Your task to perform on an android device: turn on javascript in the chrome app Image 0: 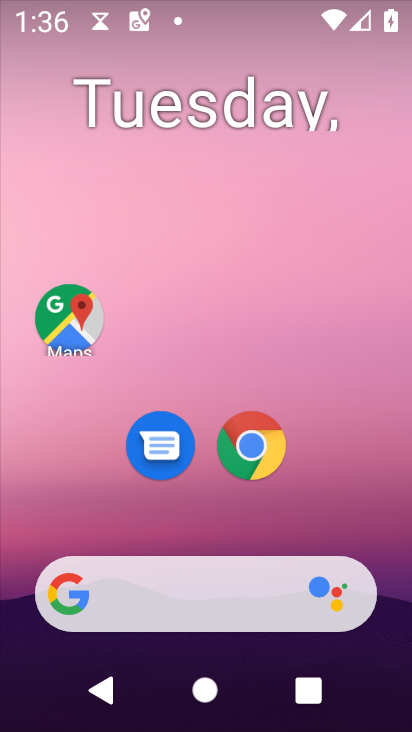
Step 0: drag from (315, 615) to (324, 113)
Your task to perform on an android device: turn on javascript in the chrome app Image 1: 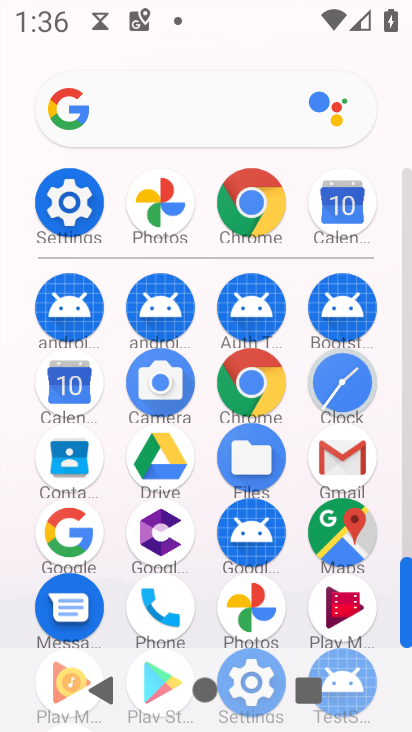
Step 1: click (262, 387)
Your task to perform on an android device: turn on javascript in the chrome app Image 2: 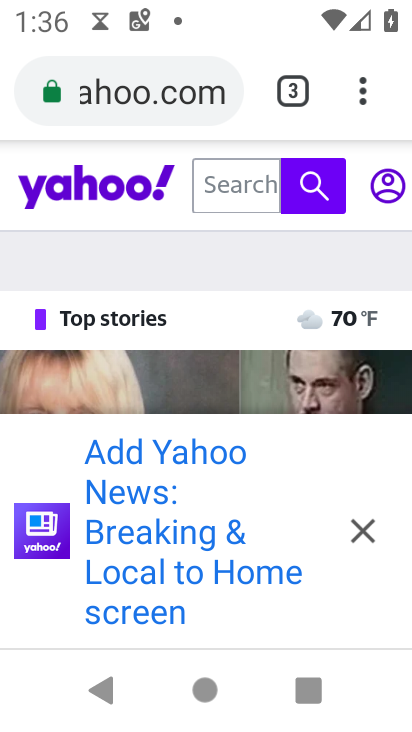
Step 2: drag from (359, 77) to (280, 516)
Your task to perform on an android device: turn on javascript in the chrome app Image 3: 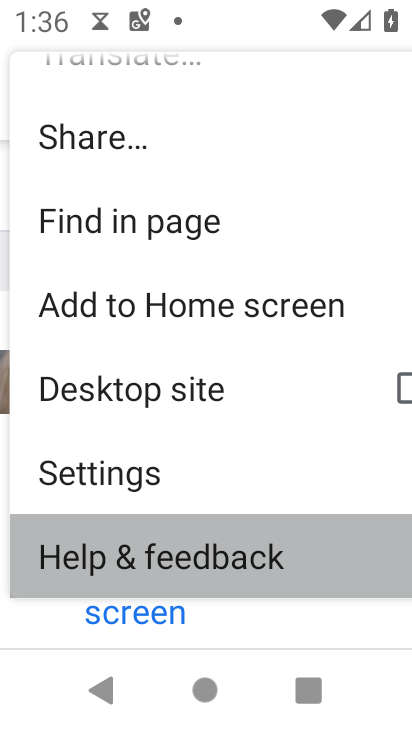
Step 3: click (279, 491)
Your task to perform on an android device: turn on javascript in the chrome app Image 4: 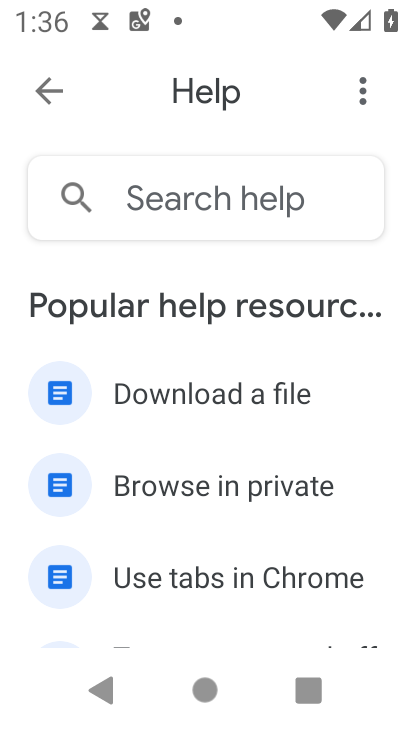
Step 4: press back button
Your task to perform on an android device: turn on javascript in the chrome app Image 5: 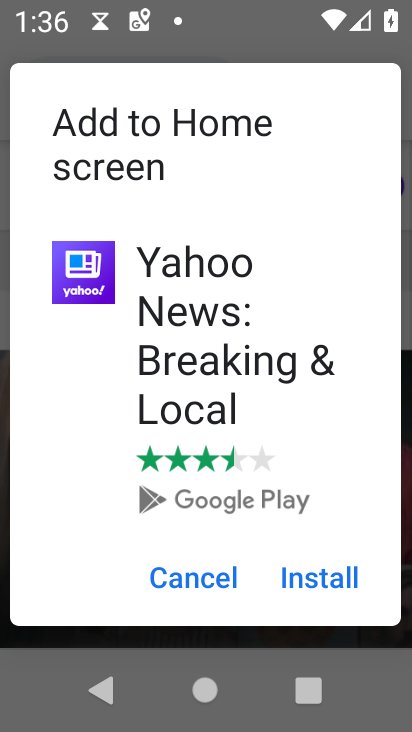
Step 5: click (216, 575)
Your task to perform on an android device: turn on javascript in the chrome app Image 6: 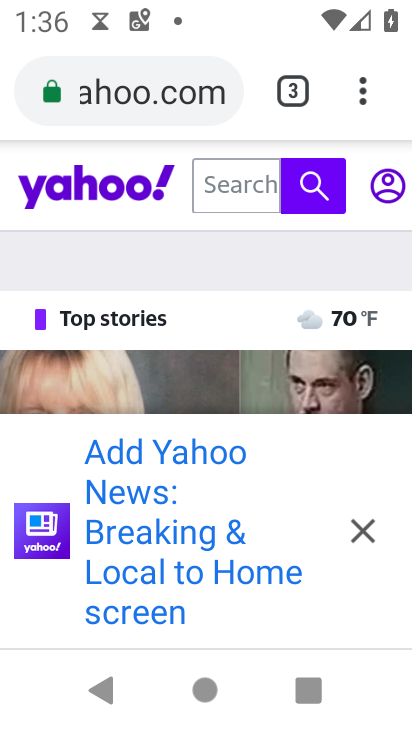
Step 6: drag from (356, 93) to (213, 465)
Your task to perform on an android device: turn on javascript in the chrome app Image 7: 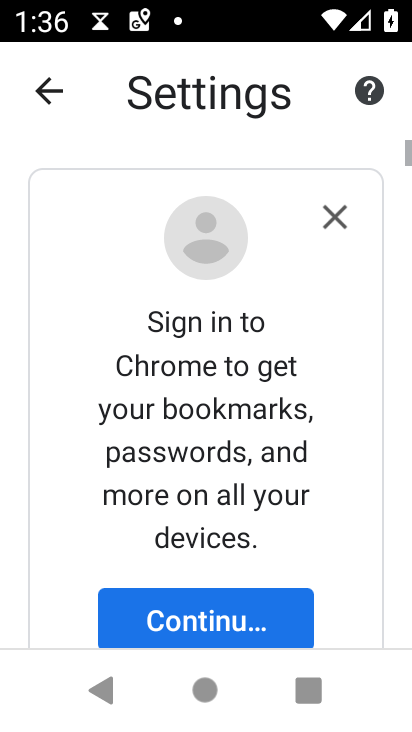
Step 7: drag from (367, 609) to (326, 69)
Your task to perform on an android device: turn on javascript in the chrome app Image 8: 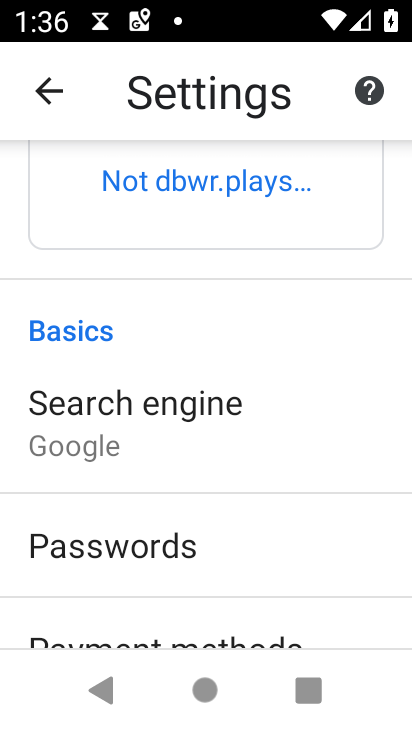
Step 8: drag from (326, 588) to (298, 283)
Your task to perform on an android device: turn on javascript in the chrome app Image 9: 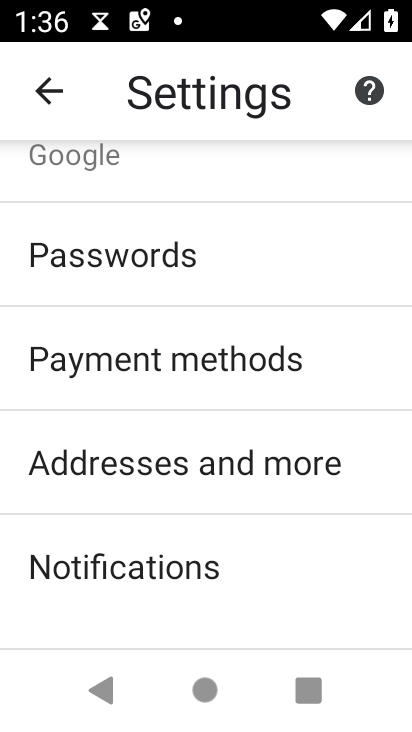
Step 9: drag from (275, 605) to (304, 188)
Your task to perform on an android device: turn on javascript in the chrome app Image 10: 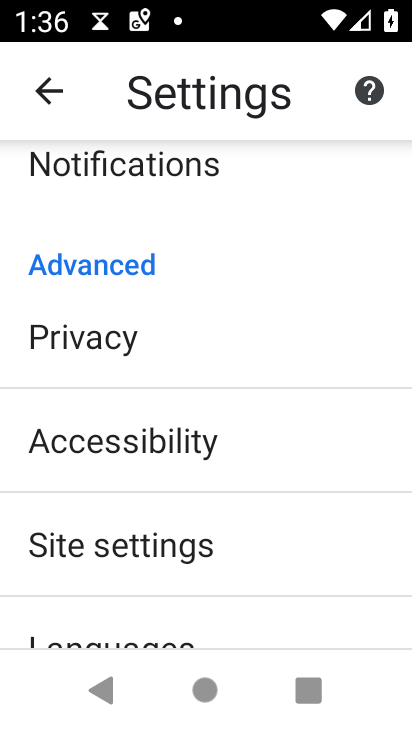
Step 10: click (219, 547)
Your task to perform on an android device: turn on javascript in the chrome app Image 11: 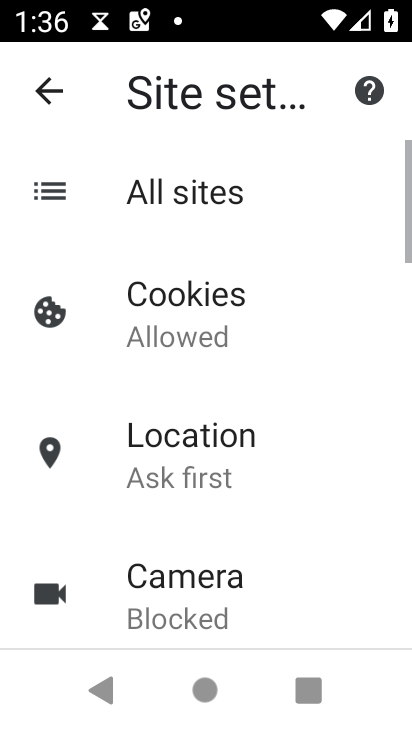
Step 11: drag from (267, 621) to (329, 75)
Your task to perform on an android device: turn on javascript in the chrome app Image 12: 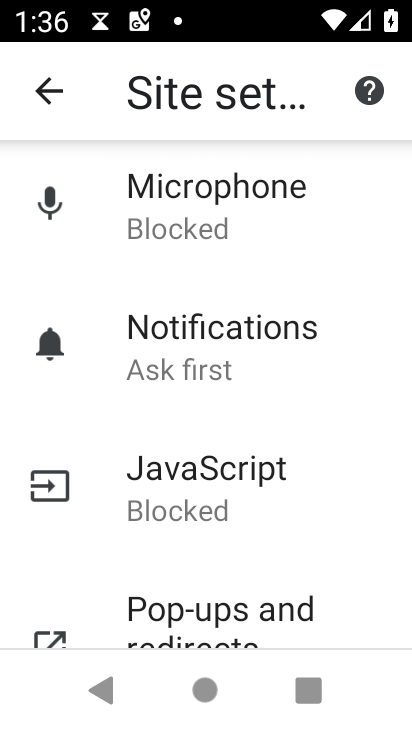
Step 12: click (266, 492)
Your task to perform on an android device: turn on javascript in the chrome app Image 13: 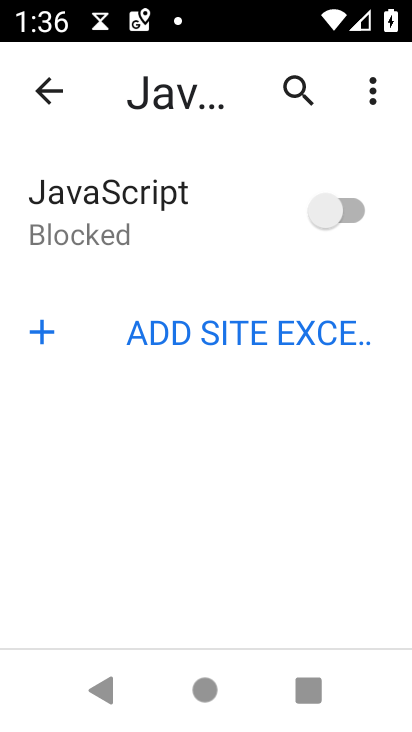
Step 13: click (345, 203)
Your task to perform on an android device: turn on javascript in the chrome app Image 14: 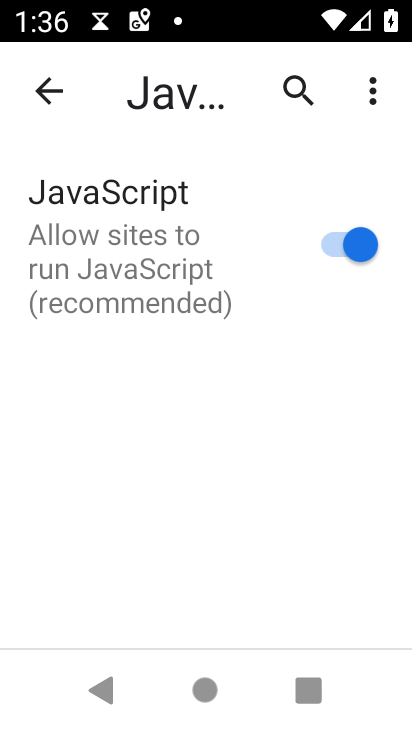
Step 14: task complete